Your task to perform on an android device: search for starred emails in the gmail app Image 0: 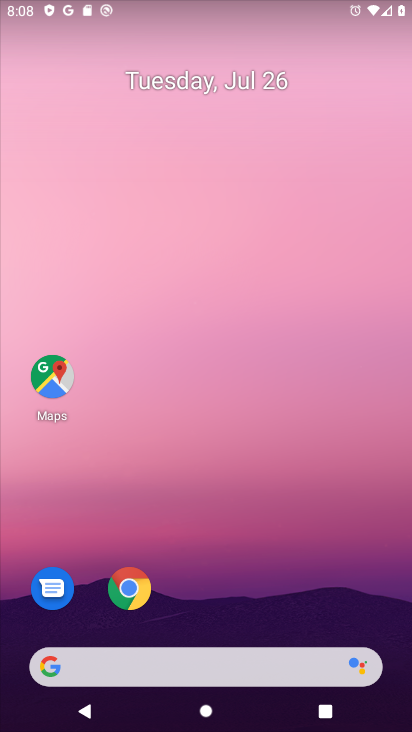
Step 0: drag from (247, 557) to (247, 22)
Your task to perform on an android device: search for starred emails in the gmail app Image 1: 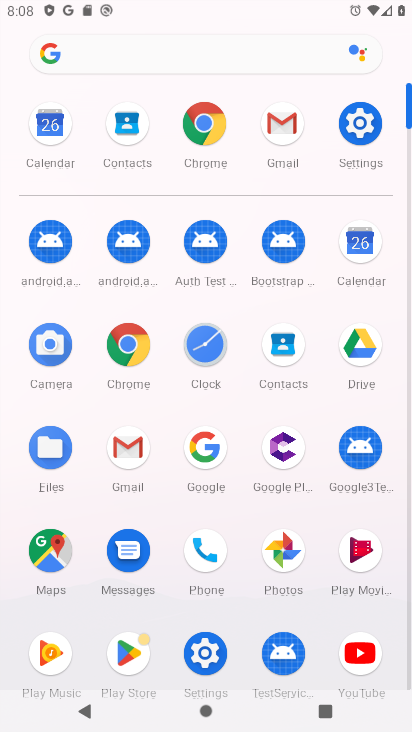
Step 1: click (139, 457)
Your task to perform on an android device: search for starred emails in the gmail app Image 2: 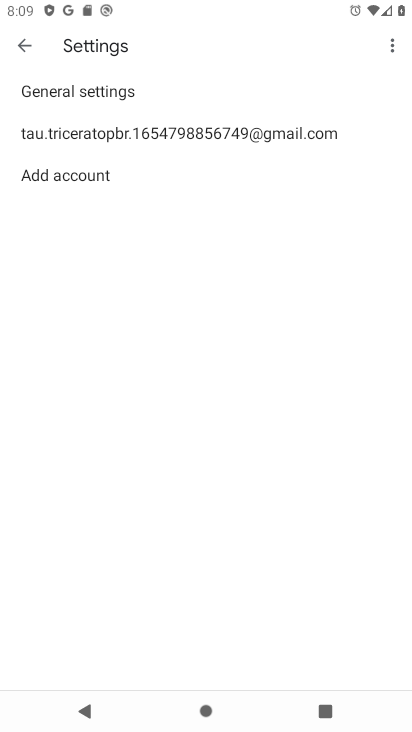
Step 2: click (25, 51)
Your task to perform on an android device: search for starred emails in the gmail app Image 3: 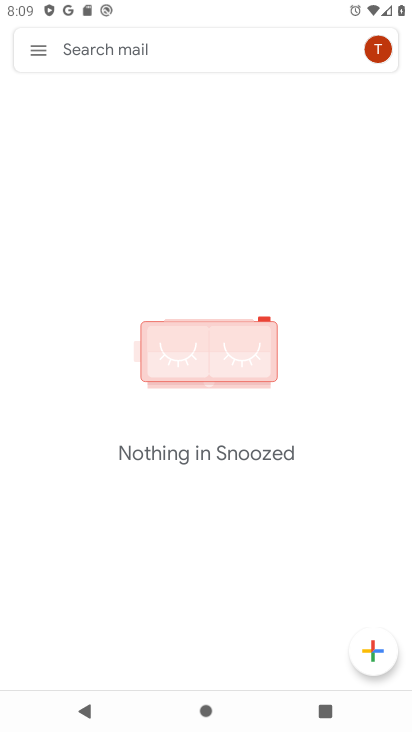
Step 3: click (45, 55)
Your task to perform on an android device: search for starred emails in the gmail app Image 4: 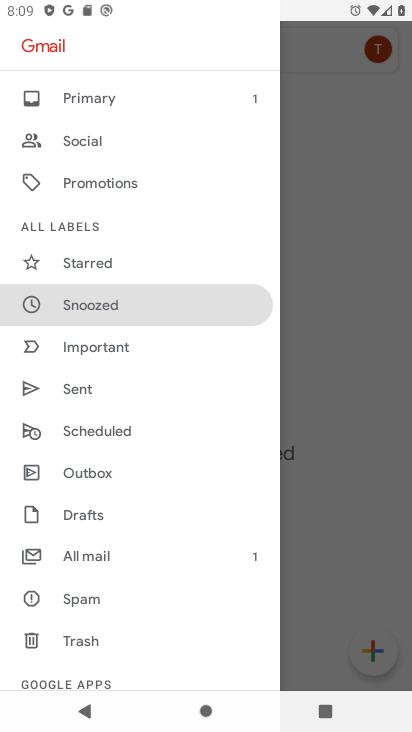
Step 4: click (68, 252)
Your task to perform on an android device: search for starred emails in the gmail app Image 5: 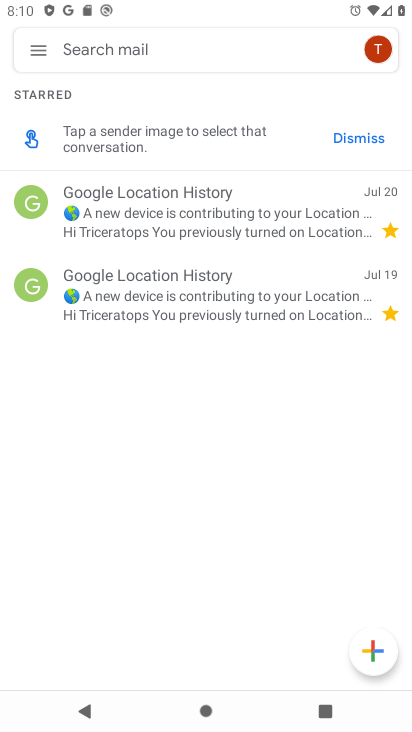
Step 5: task complete